Your task to perform on an android device: turn off priority inbox in the gmail app Image 0: 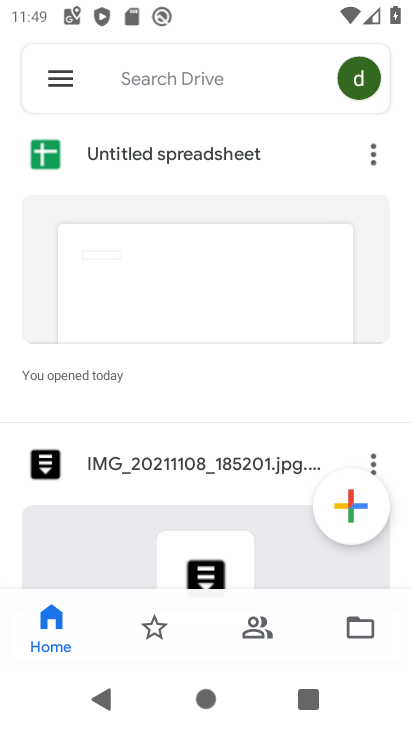
Step 0: press home button
Your task to perform on an android device: turn off priority inbox in the gmail app Image 1: 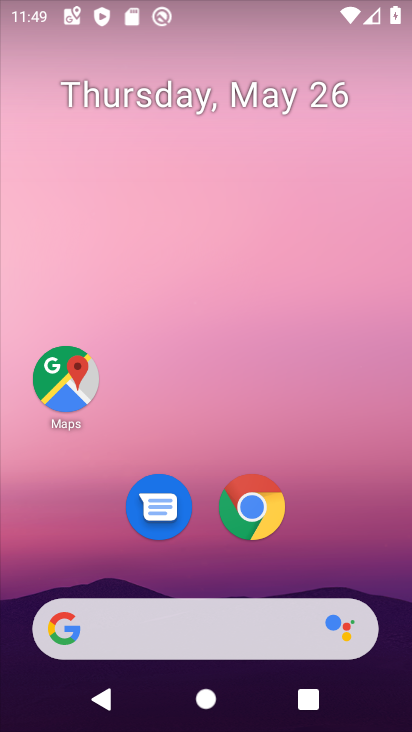
Step 1: drag from (378, 523) to (295, 235)
Your task to perform on an android device: turn off priority inbox in the gmail app Image 2: 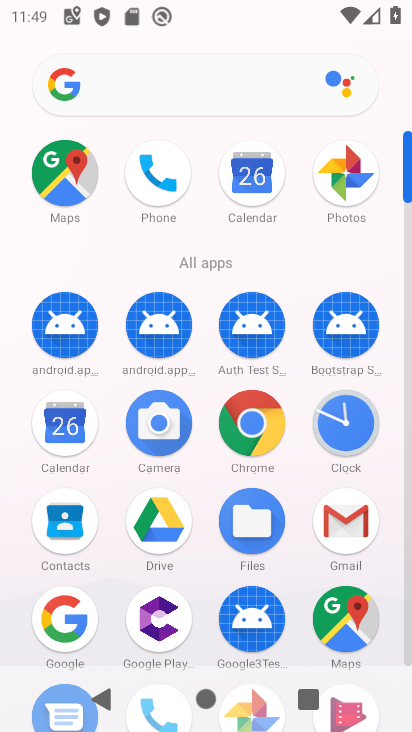
Step 2: click (359, 517)
Your task to perform on an android device: turn off priority inbox in the gmail app Image 3: 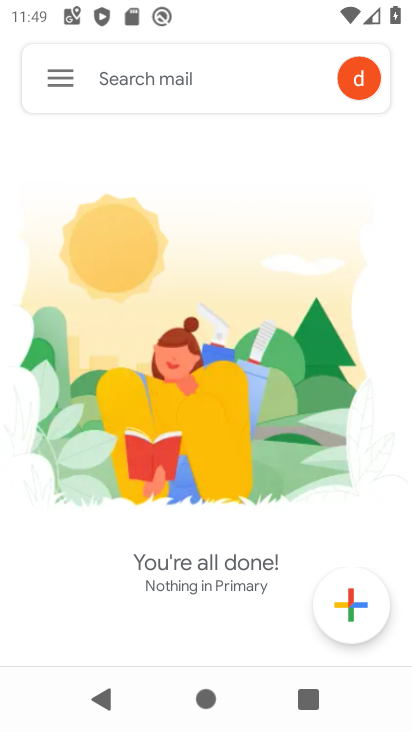
Step 3: click (69, 71)
Your task to perform on an android device: turn off priority inbox in the gmail app Image 4: 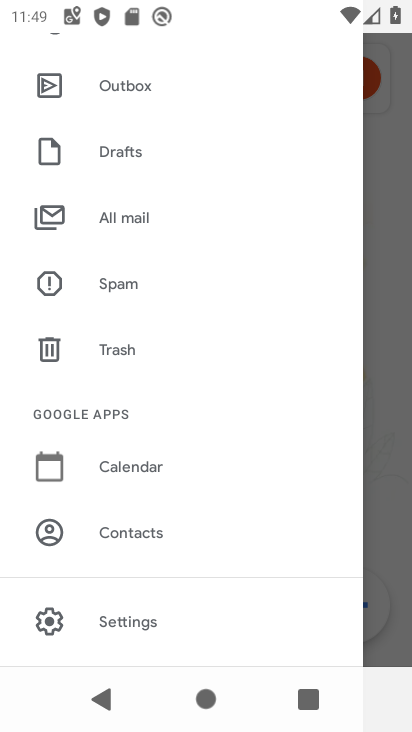
Step 4: click (116, 622)
Your task to perform on an android device: turn off priority inbox in the gmail app Image 5: 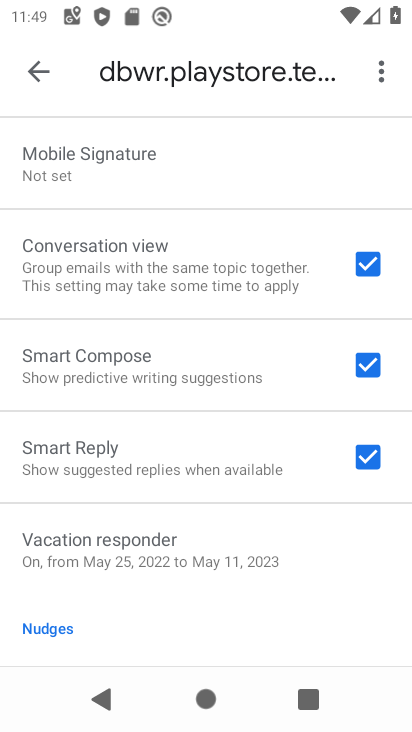
Step 5: drag from (113, 190) to (236, 687)
Your task to perform on an android device: turn off priority inbox in the gmail app Image 6: 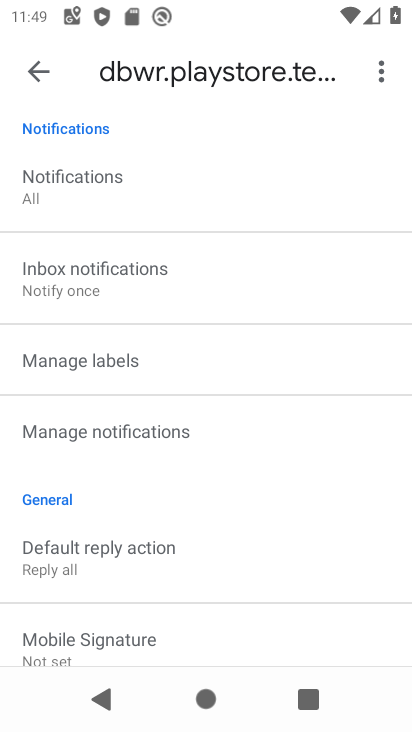
Step 6: drag from (114, 158) to (157, 589)
Your task to perform on an android device: turn off priority inbox in the gmail app Image 7: 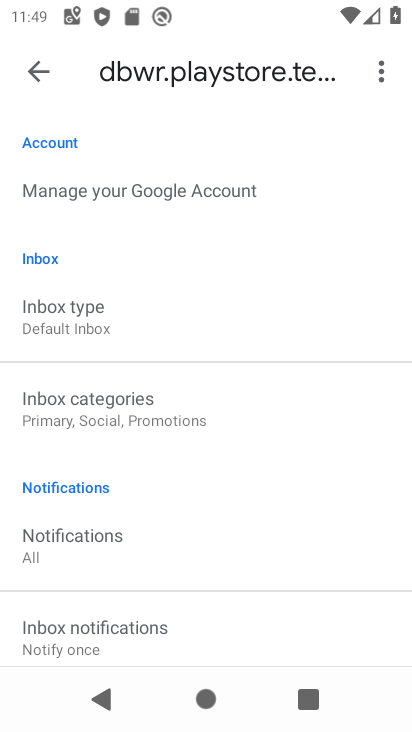
Step 7: click (82, 320)
Your task to perform on an android device: turn off priority inbox in the gmail app Image 8: 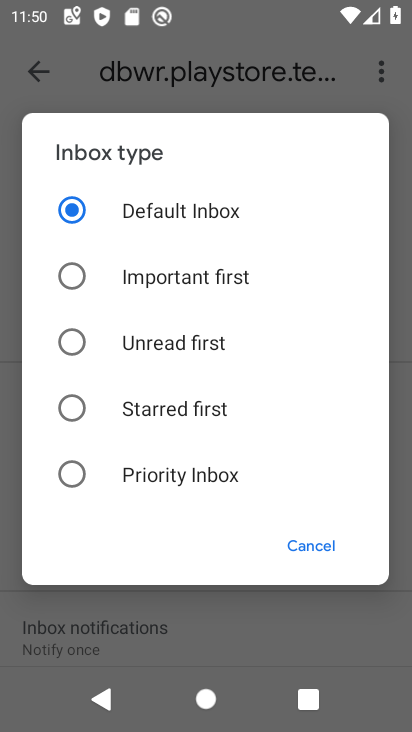
Step 8: task complete